Your task to perform on an android device: add a contact in the contacts app Image 0: 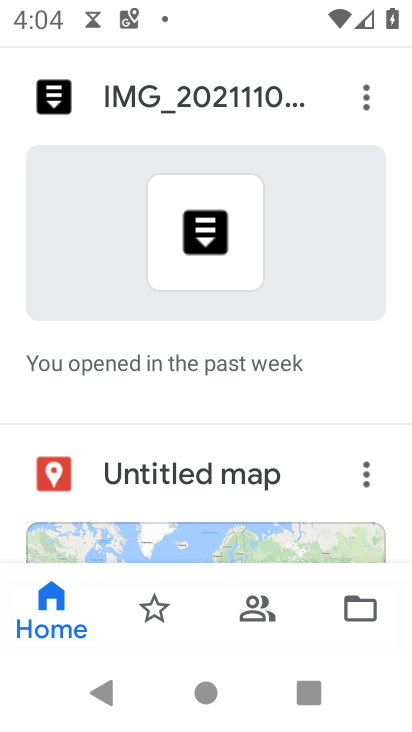
Step 0: press home button
Your task to perform on an android device: add a contact in the contacts app Image 1: 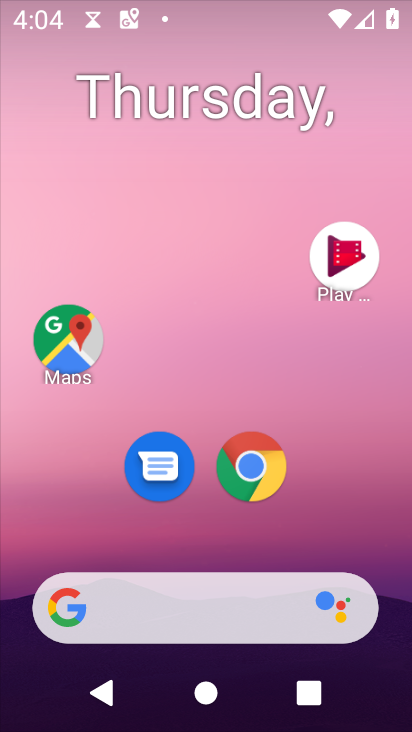
Step 1: drag from (299, 628) to (296, 6)
Your task to perform on an android device: add a contact in the contacts app Image 2: 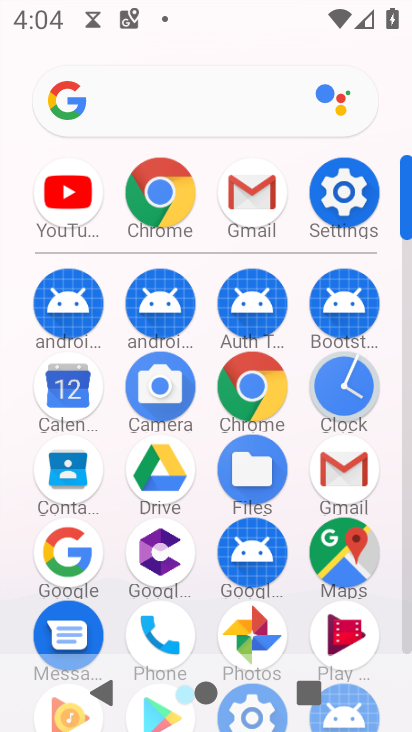
Step 2: click (77, 483)
Your task to perform on an android device: add a contact in the contacts app Image 3: 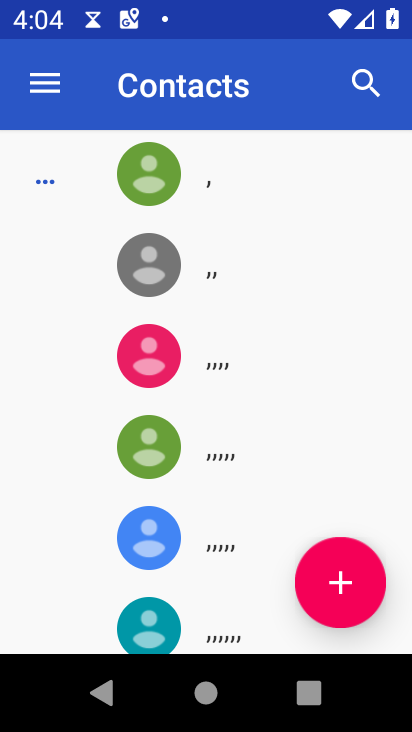
Step 3: click (324, 576)
Your task to perform on an android device: add a contact in the contacts app Image 4: 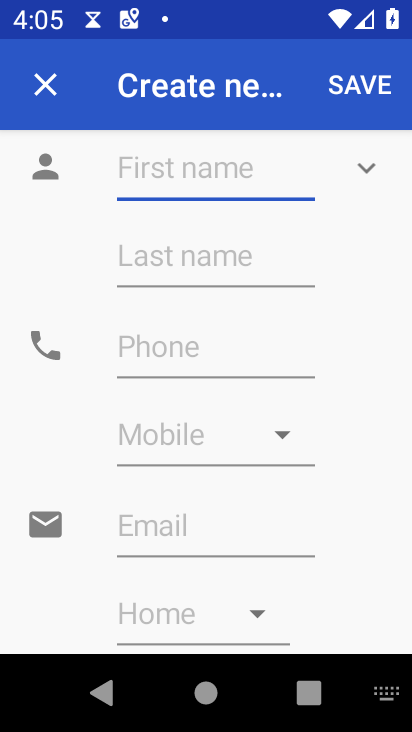
Step 4: type "jhvjhvhk"
Your task to perform on an android device: add a contact in the contacts app Image 5: 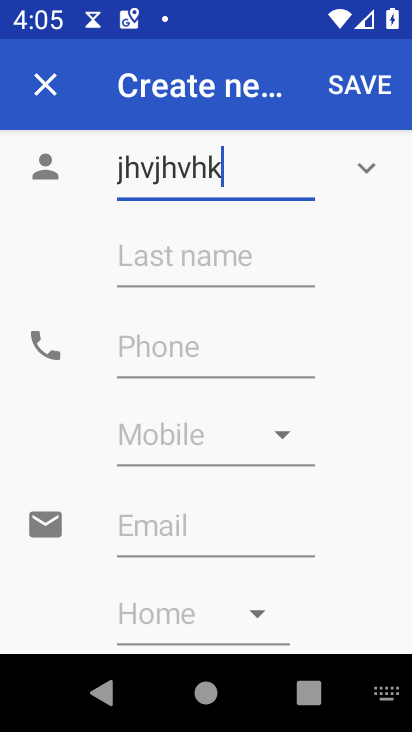
Step 5: click (147, 354)
Your task to perform on an android device: add a contact in the contacts app Image 6: 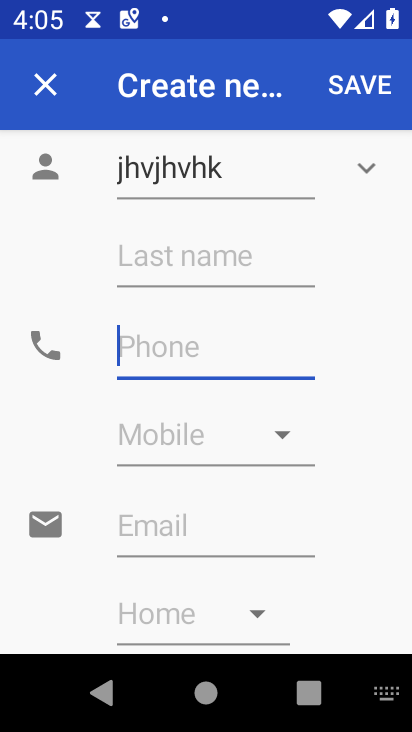
Step 6: type "9897675678"
Your task to perform on an android device: add a contact in the contacts app Image 7: 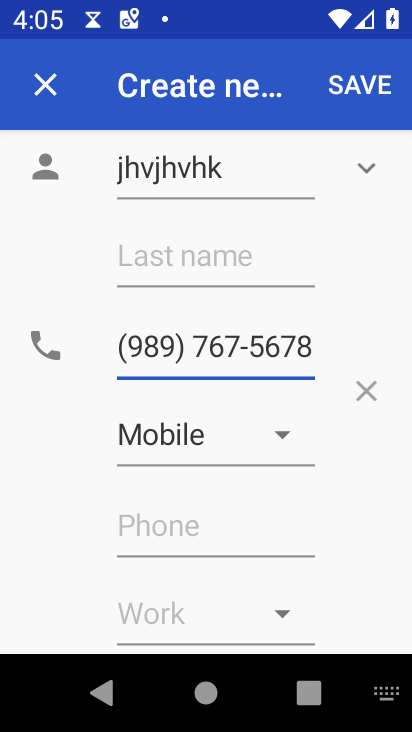
Step 7: click (348, 84)
Your task to perform on an android device: add a contact in the contacts app Image 8: 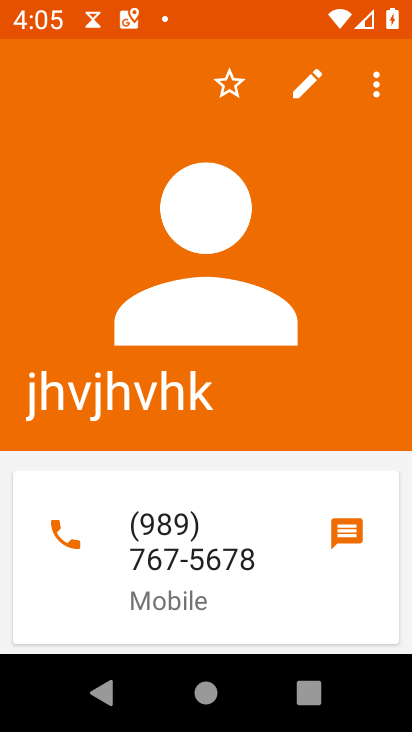
Step 8: task complete